Your task to perform on an android device: change your default location settings in chrome Image 0: 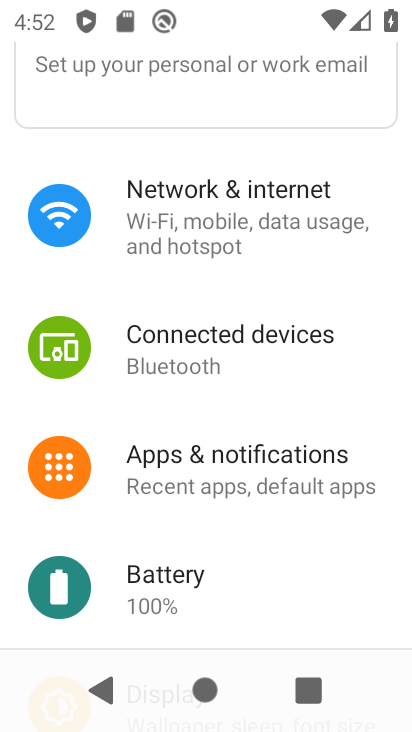
Step 0: press home button
Your task to perform on an android device: change your default location settings in chrome Image 1: 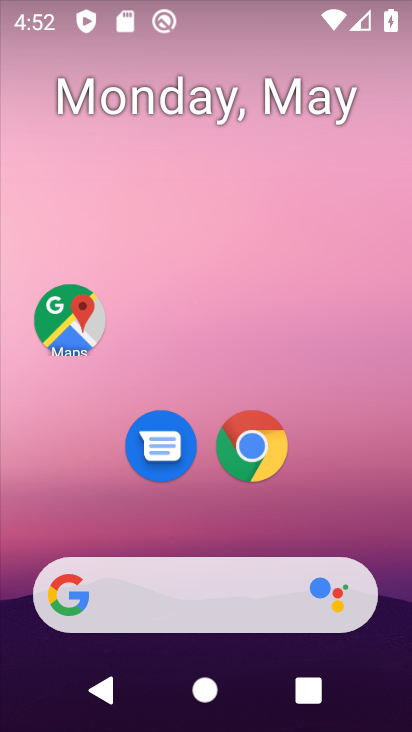
Step 1: click (247, 449)
Your task to perform on an android device: change your default location settings in chrome Image 2: 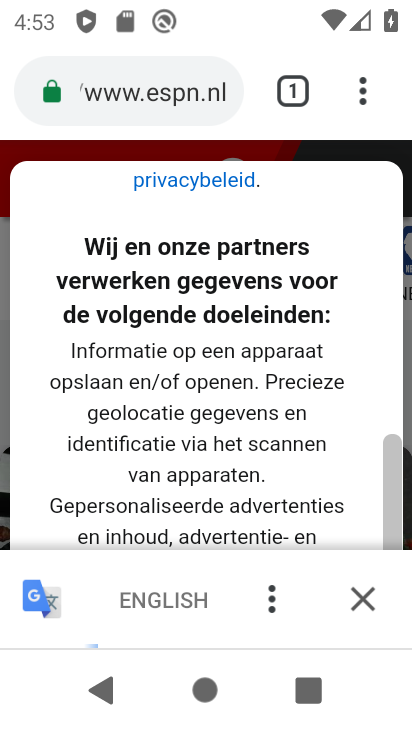
Step 2: click (350, 597)
Your task to perform on an android device: change your default location settings in chrome Image 3: 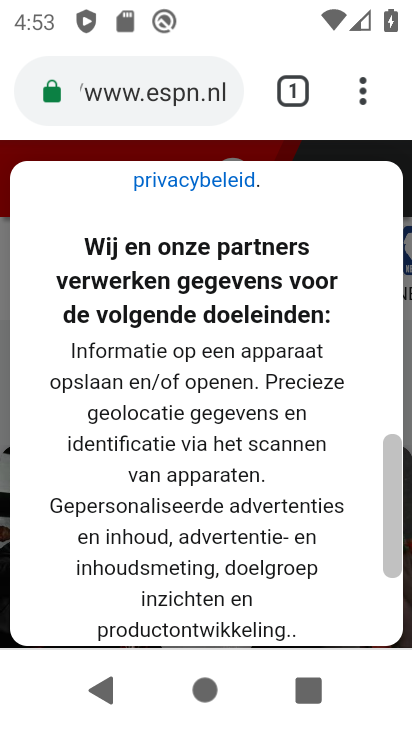
Step 3: click (363, 92)
Your task to perform on an android device: change your default location settings in chrome Image 4: 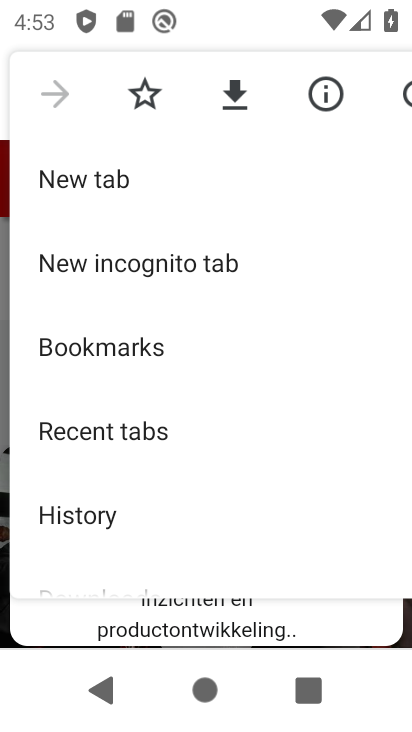
Step 4: drag from (249, 303) to (211, 130)
Your task to perform on an android device: change your default location settings in chrome Image 5: 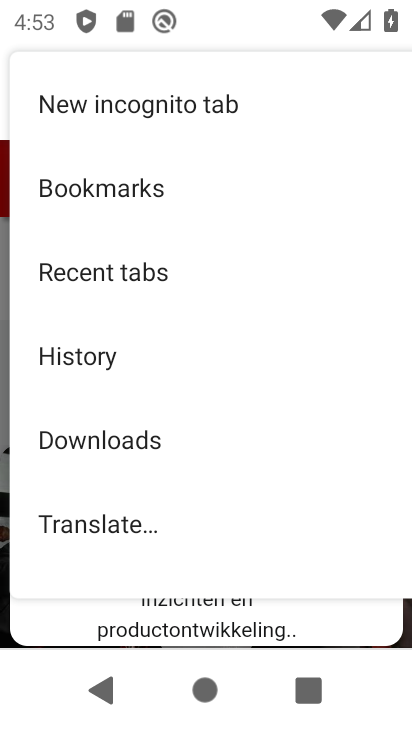
Step 5: drag from (176, 450) to (178, 179)
Your task to perform on an android device: change your default location settings in chrome Image 6: 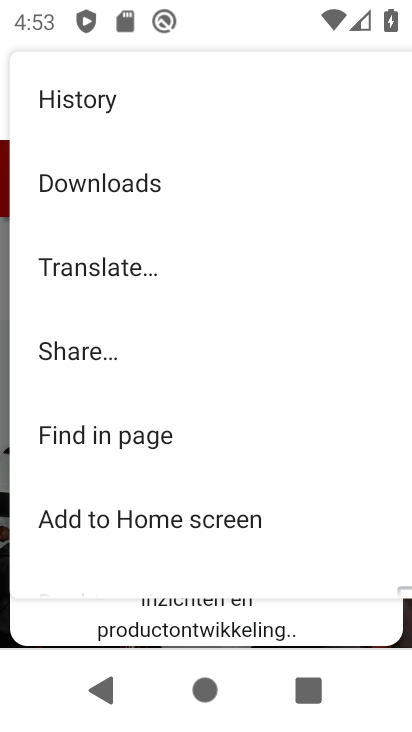
Step 6: drag from (297, 407) to (287, 94)
Your task to perform on an android device: change your default location settings in chrome Image 7: 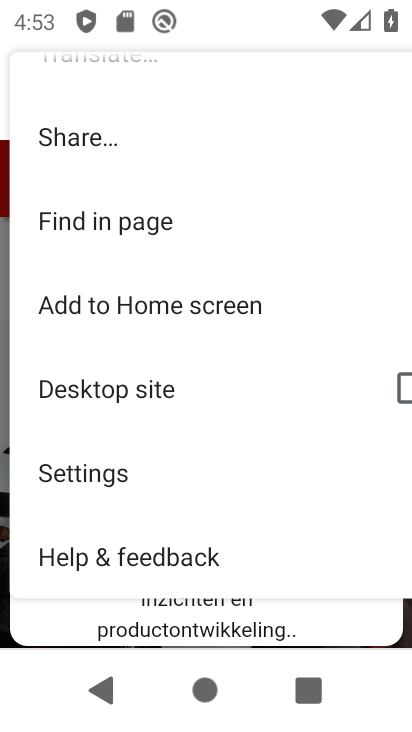
Step 7: click (89, 466)
Your task to perform on an android device: change your default location settings in chrome Image 8: 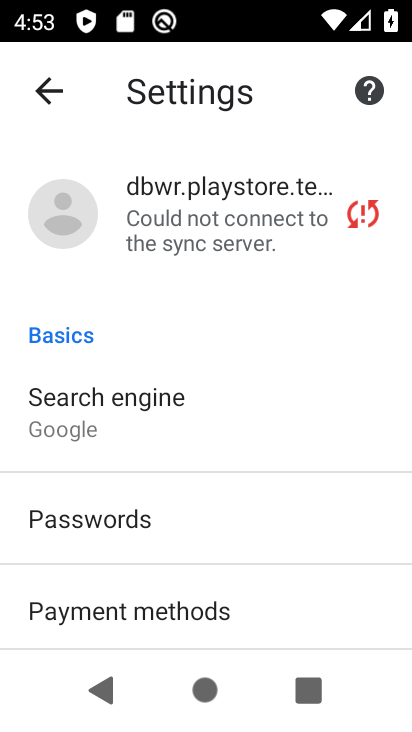
Step 8: drag from (255, 479) to (226, 207)
Your task to perform on an android device: change your default location settings in chrome Image 9: 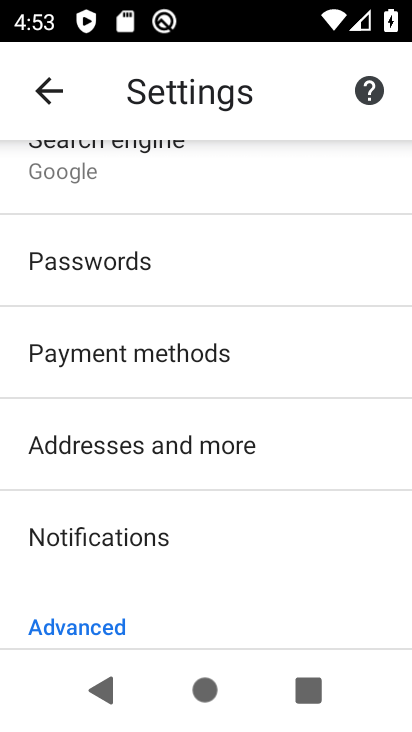
Step 9: drag from (182, 574) to (153, 240)
Your task to perform on an android device: change your default location settings in chrome Image 10: 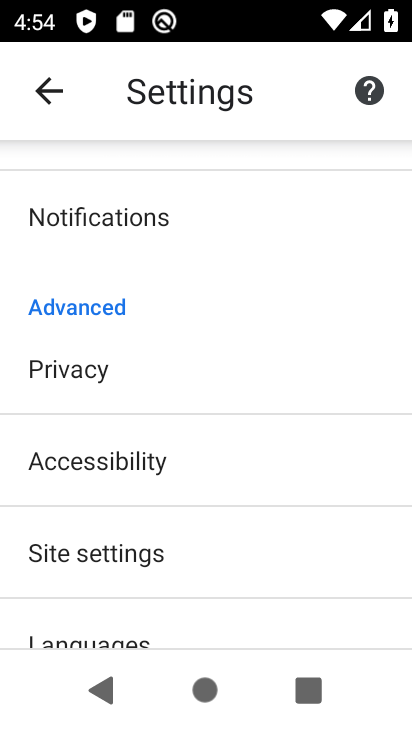
Step 10: drag from (225, 463) to (185, 134)
Your task to perform on an android device: change your default location settings in chrome Image 11: 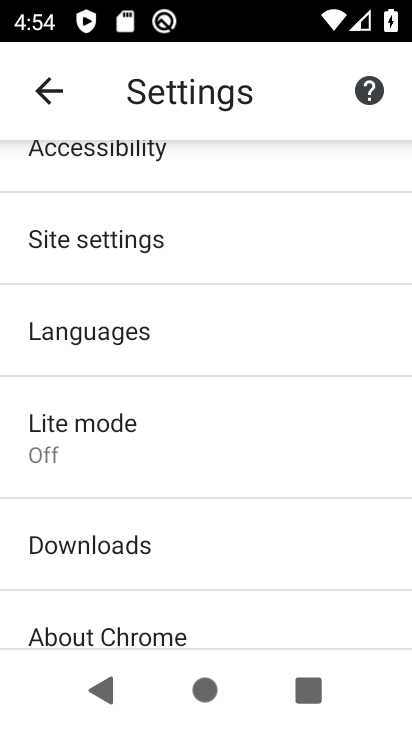
Step 11: click (127, 240)
Your task to perform on an android device: change your default location settings in chrome Image 12: 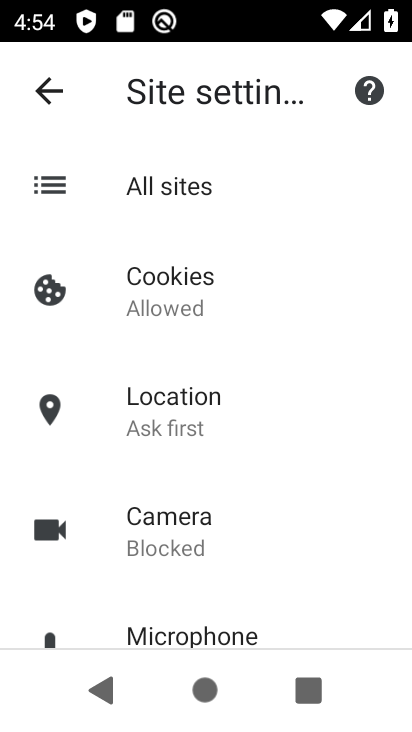
Step 12: click (177, 388)
Your task to perform on an android device: change your default location settings in chrome Image 13: 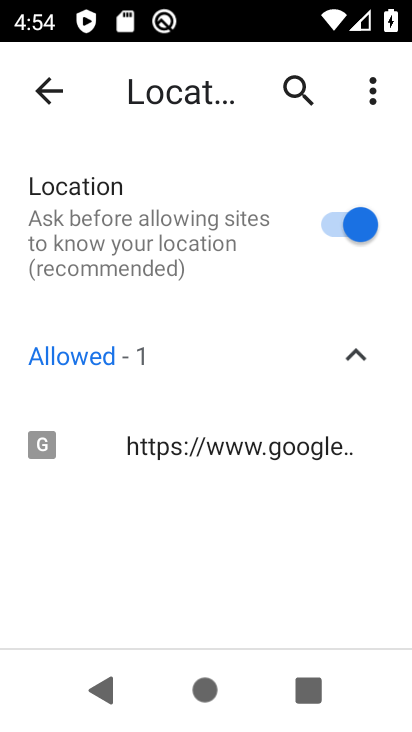
Step 13: click (362, 219)
Your task to perform on an android device: change your default location settings in chrome Image 14: 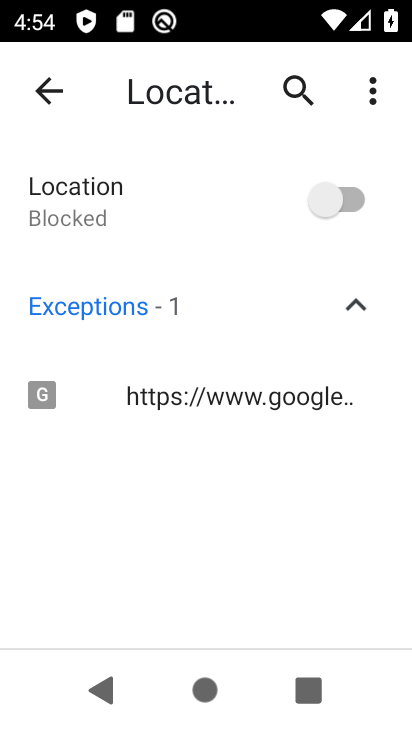
Step 14: task complete